Your task to perform on an android device: Search for razer huntsman on bestbuy, select the first entry, add it to the cart, then select checkout. Image 0: 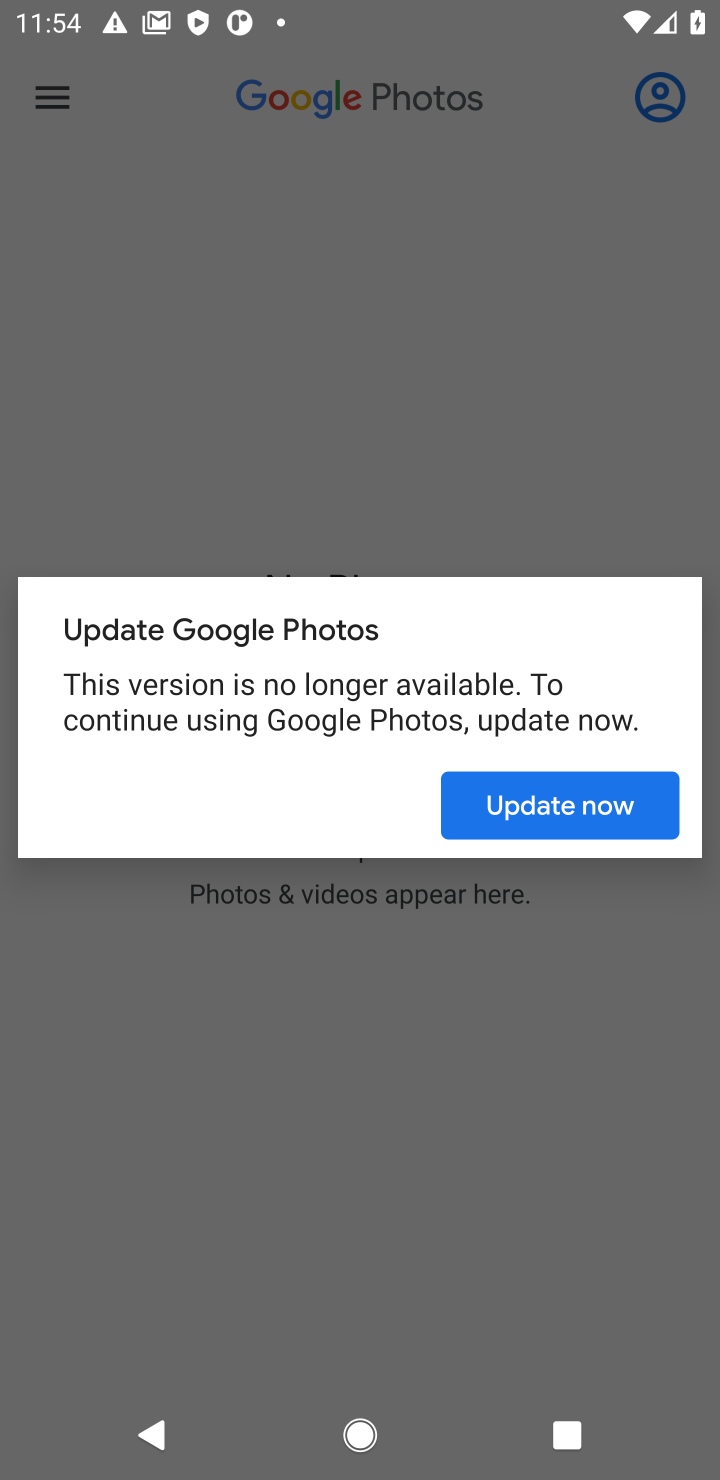
Step 0: press home button
Your task to perform on an android device: Search for razer huntsman on bestbuy, select the first entry, add it to the cart, then select checkout. Image 1: 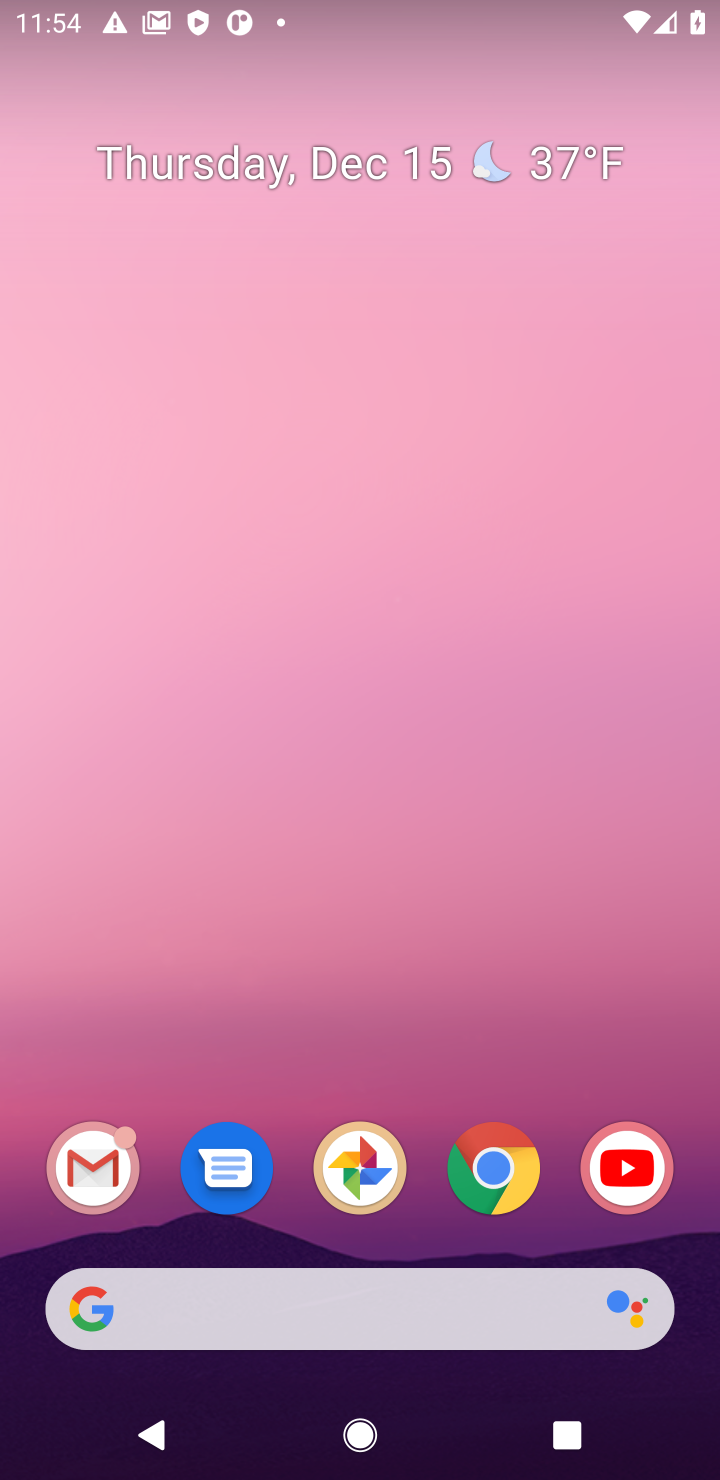
Step 1: click (476, 1193)
Your task to perform on an android device: Search for razer huntsman on bestbuy, select the first entry, add it to the cart, then select checkout. Image 2: 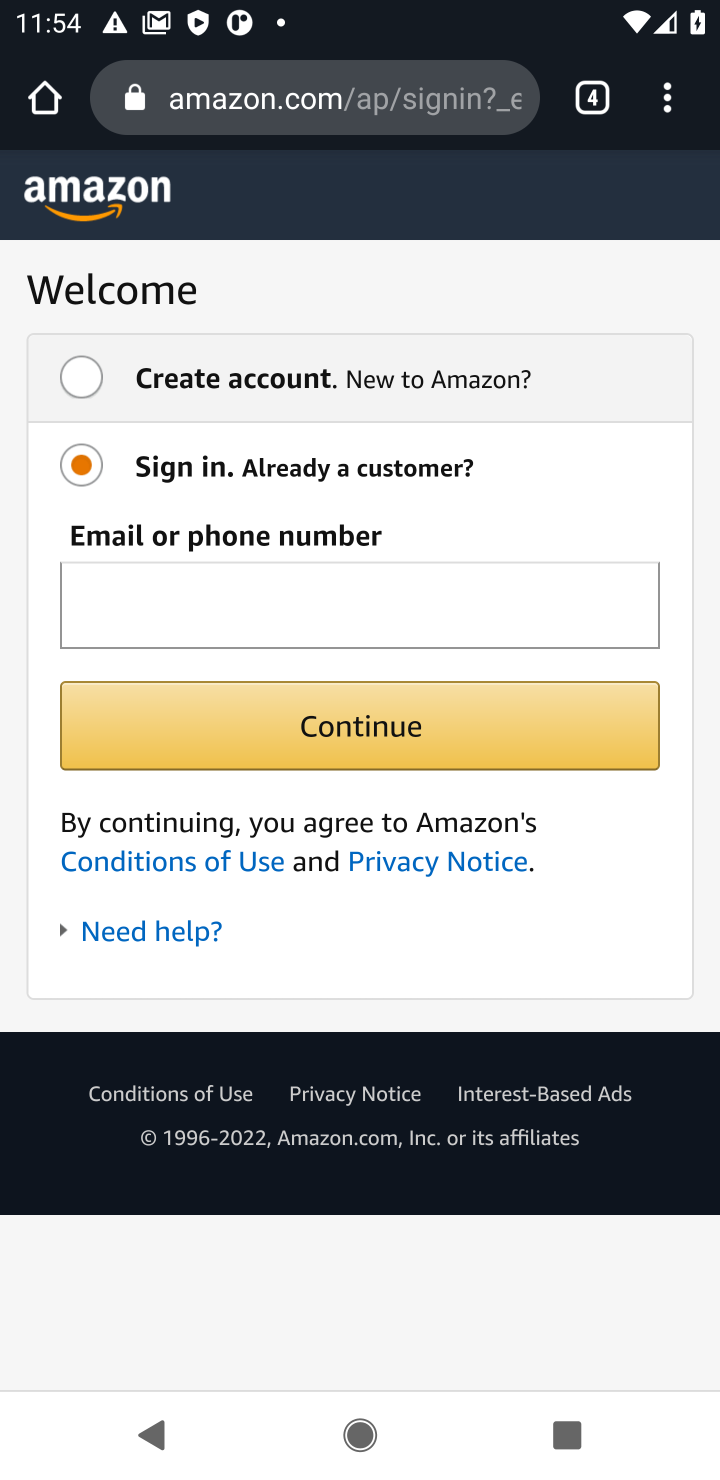
Step 2: click (353, 122)
Your task to perform on an android device: Search for razer huntsman on bestbuy, select the first entry, add it to the cart, then select checkout. Image 3: 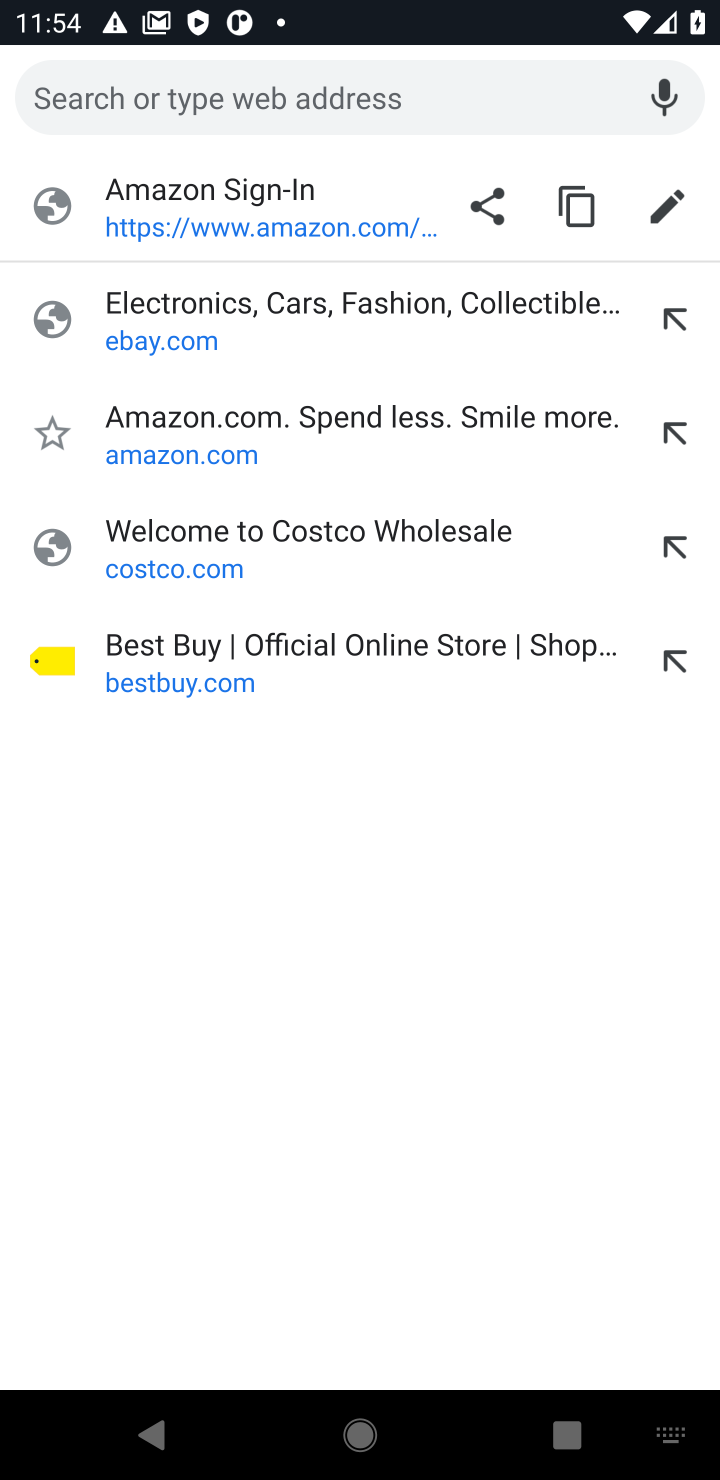
Step 3: click (262, 671)
Your task to perform on an android device: Search for razer huntsman on bestbuy, select the first entry, add it to the cart, then select checkout. Image 4: 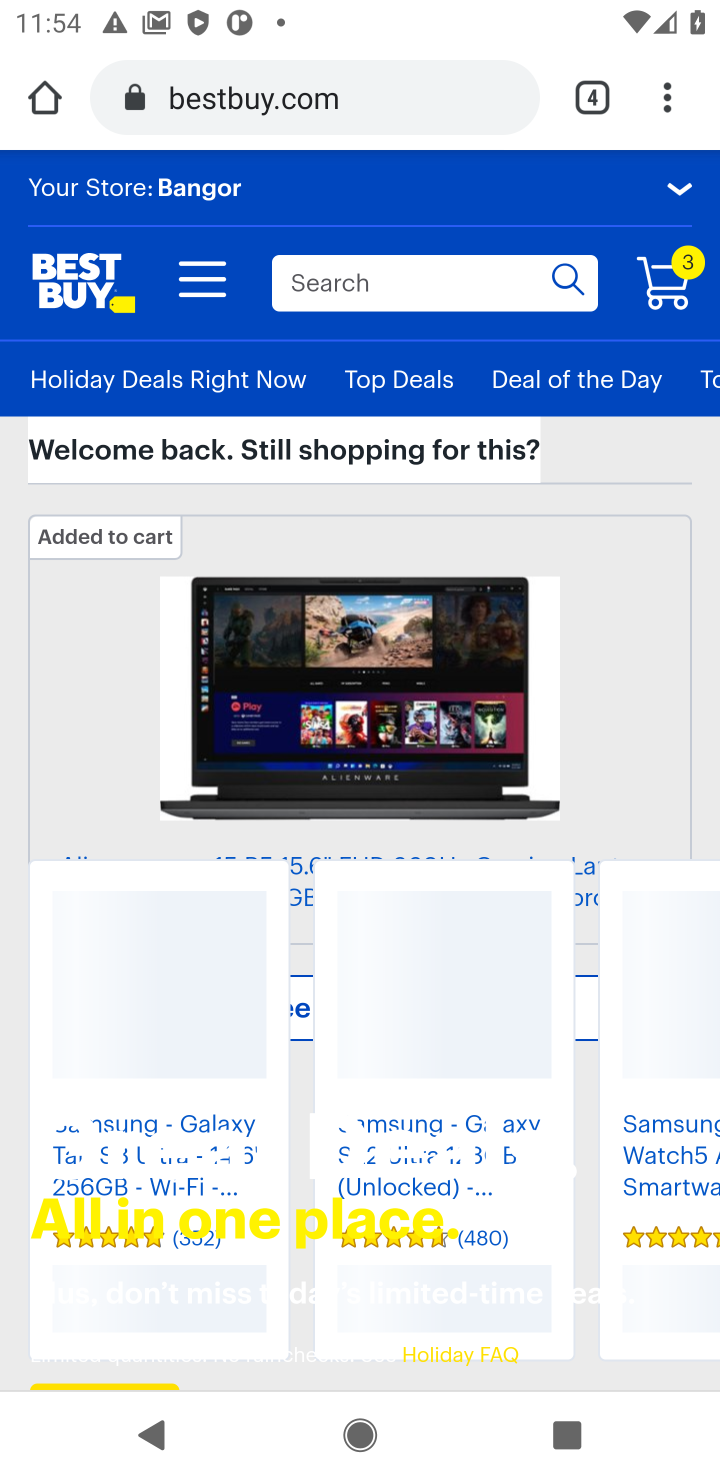
Step 4: click (377, 292)
Your task to perform on an android device: Search for razer huntsman on bestbuy, select the first entry, add it to the cart, then select checkout. Image 5: 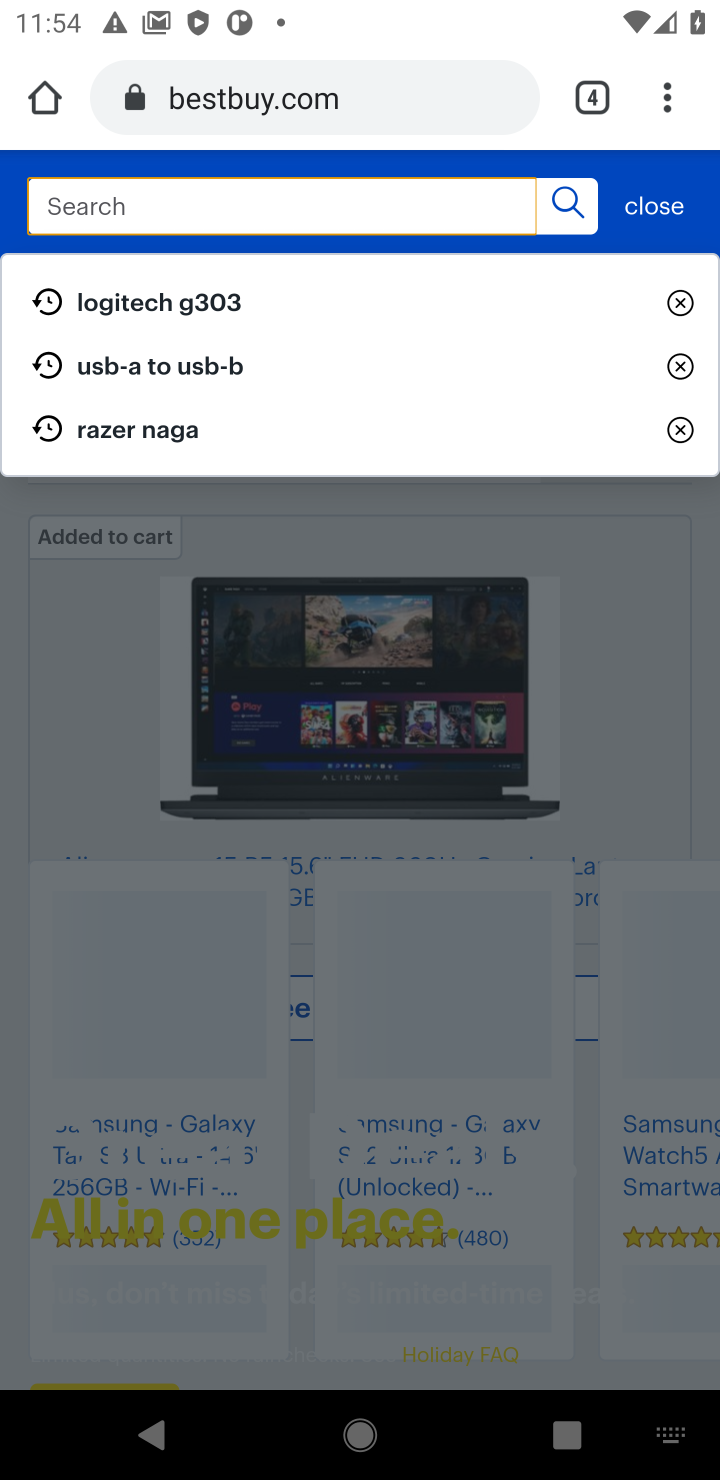
Step 5: type "razer hu8ntsman"
Your task to perform on an android device: Search for razer huntsman on bestbuy, select the first entry, add it to the cart, then select checkout. Image 6: 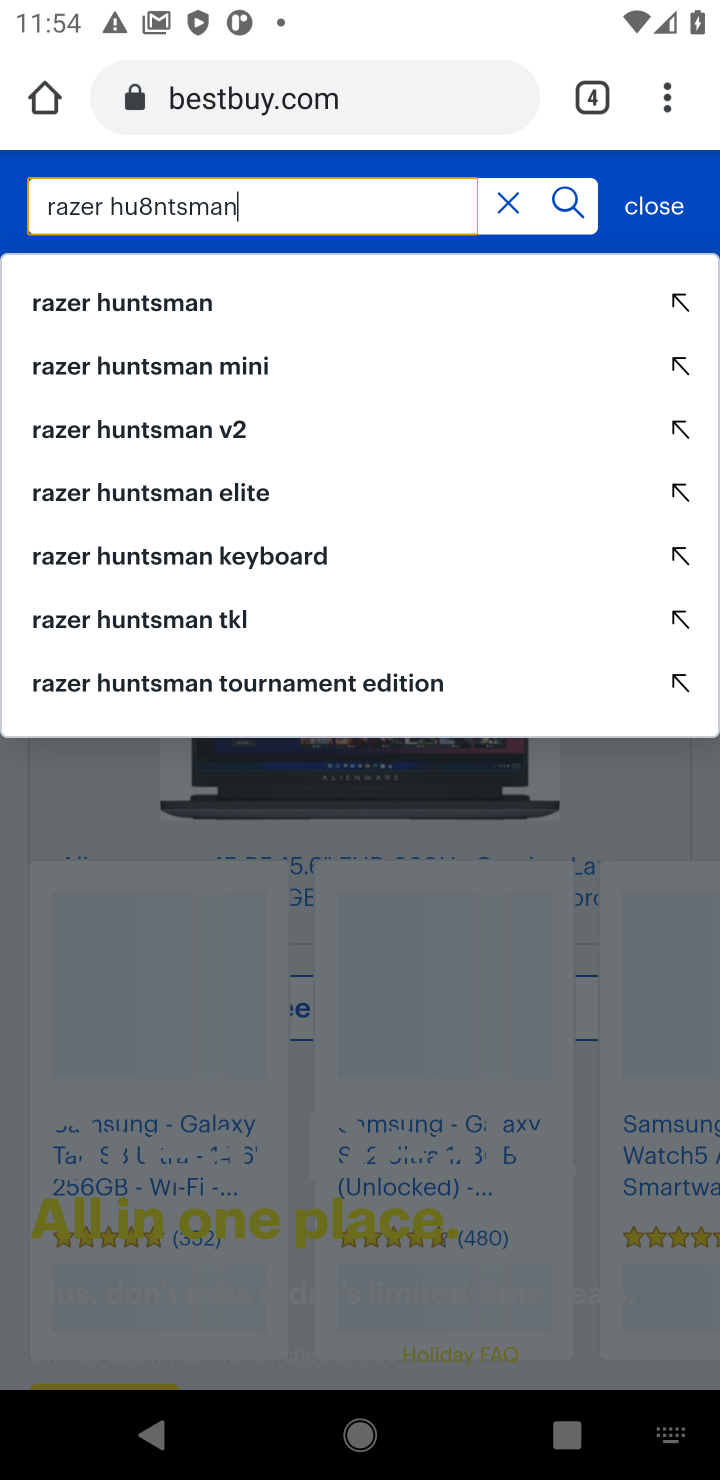
Step 6: click (209, 300)
Your task to perform on an android device: Search for razer huntsman on bestbuy, select the first entry, add it to the cart, then select checkout. Image 7: 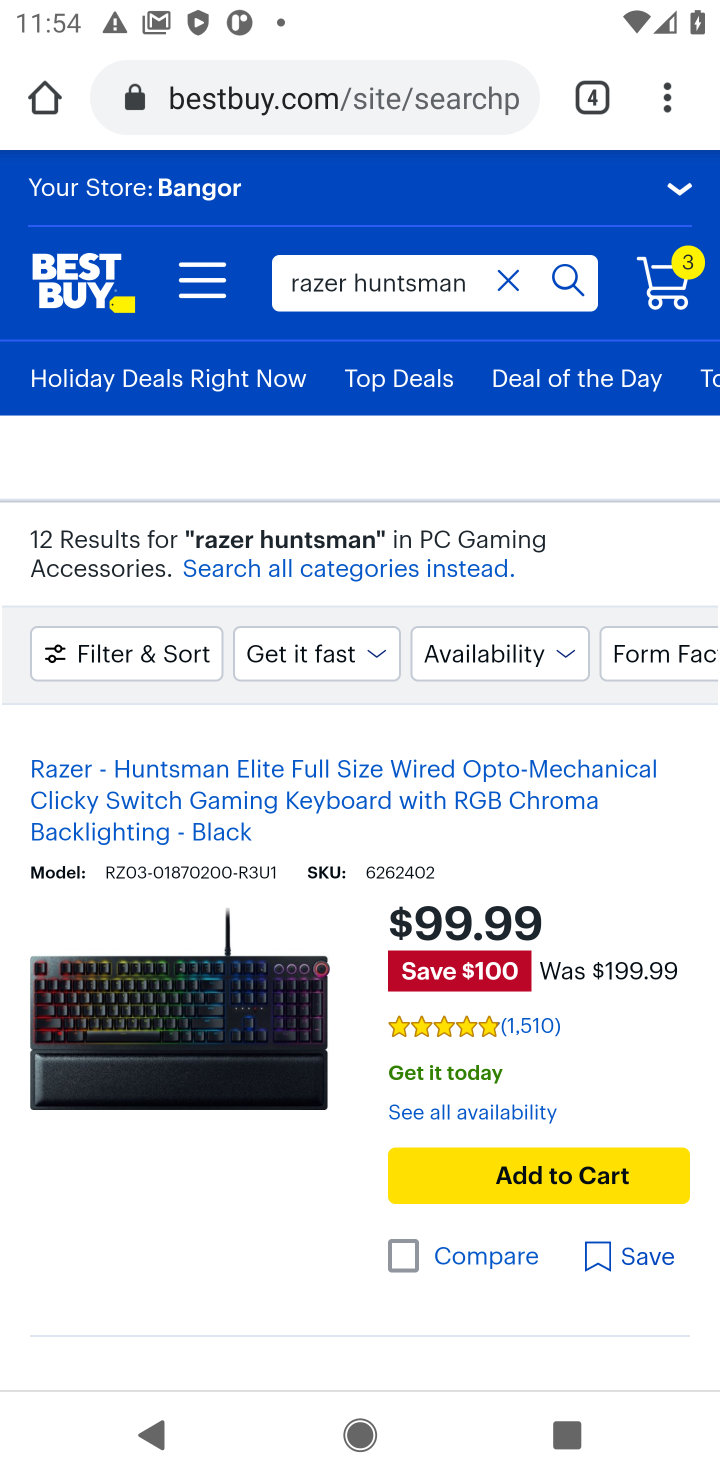
Step 7: click (354, 1022)
Your task to perform on an android device: Search for razer huntsman on bestbuy, select the first entry, add it to the cart, then select checkout. Image 8: 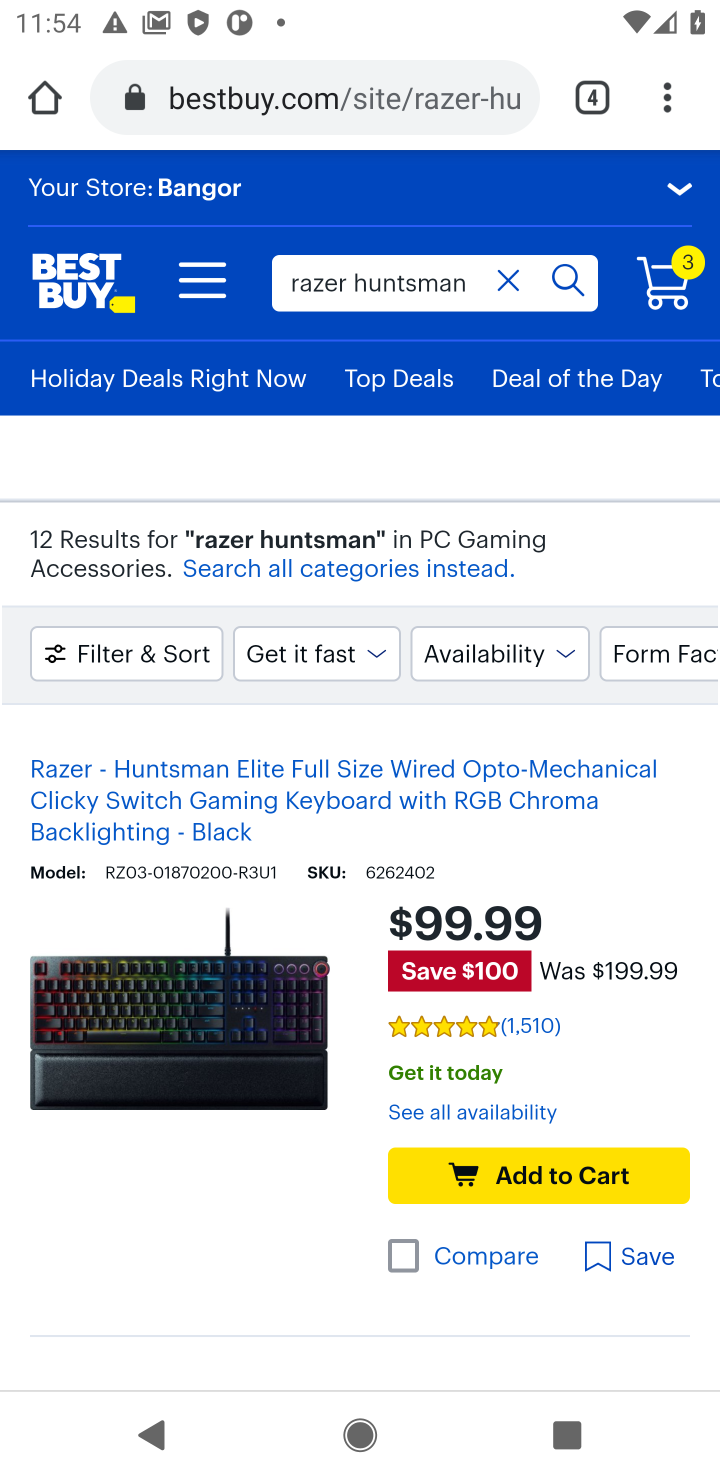
Step 8: click (571, 1163)
Your task to perform on an android device: Search for razer huntsman on bestbuy, select the first entry, add it to the cart, then select checkout. Image 9: 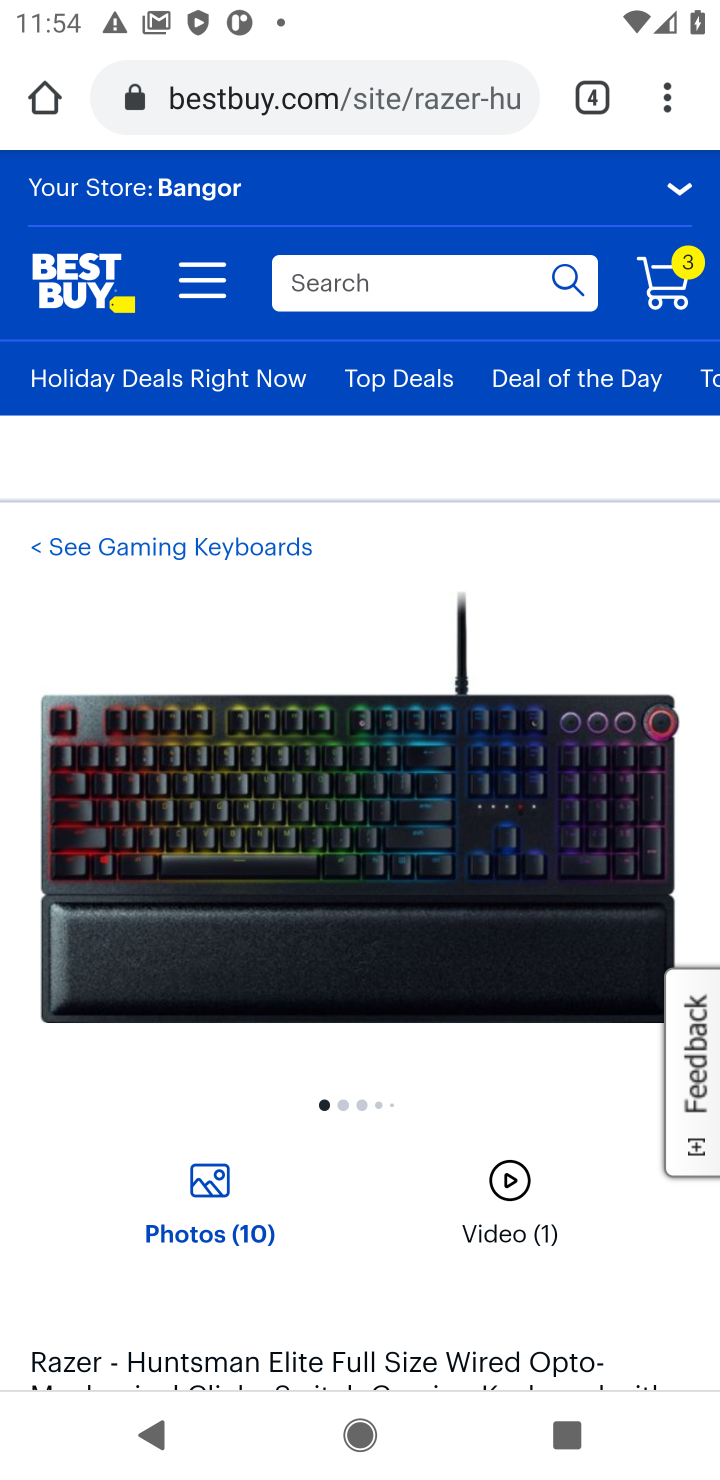
Step 9: drag from (426, 1296) to (369, 396)
Your task to perform on an android device: Search for razer huntsman on bestbuy, select the first entry, add it to the cart, then select checkout. Image 10: 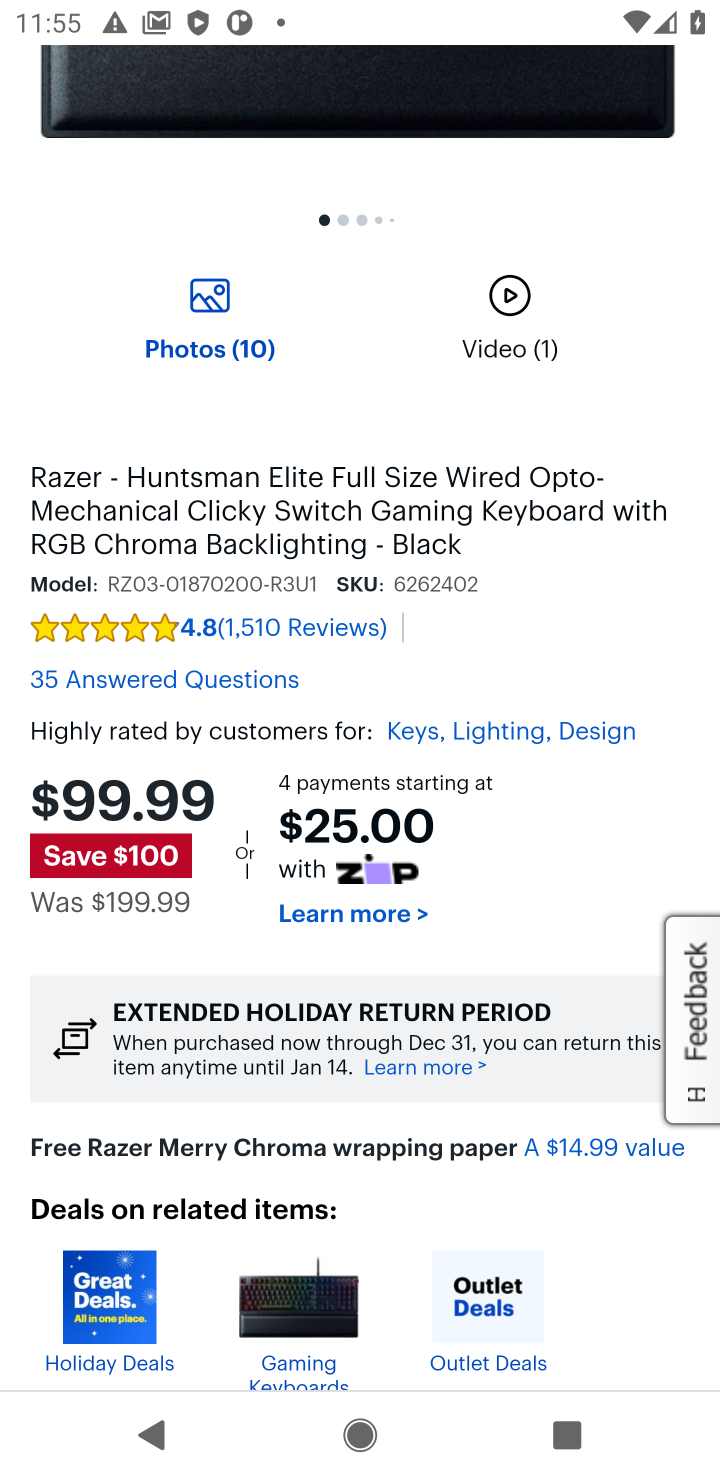
Step 10: drag from (410, 1311) to (407, 453)
Your task to perform on an android device: Search for razer huntsman on bestbuy, select the first entry, add it to the cart, then select checkout. Image 11: 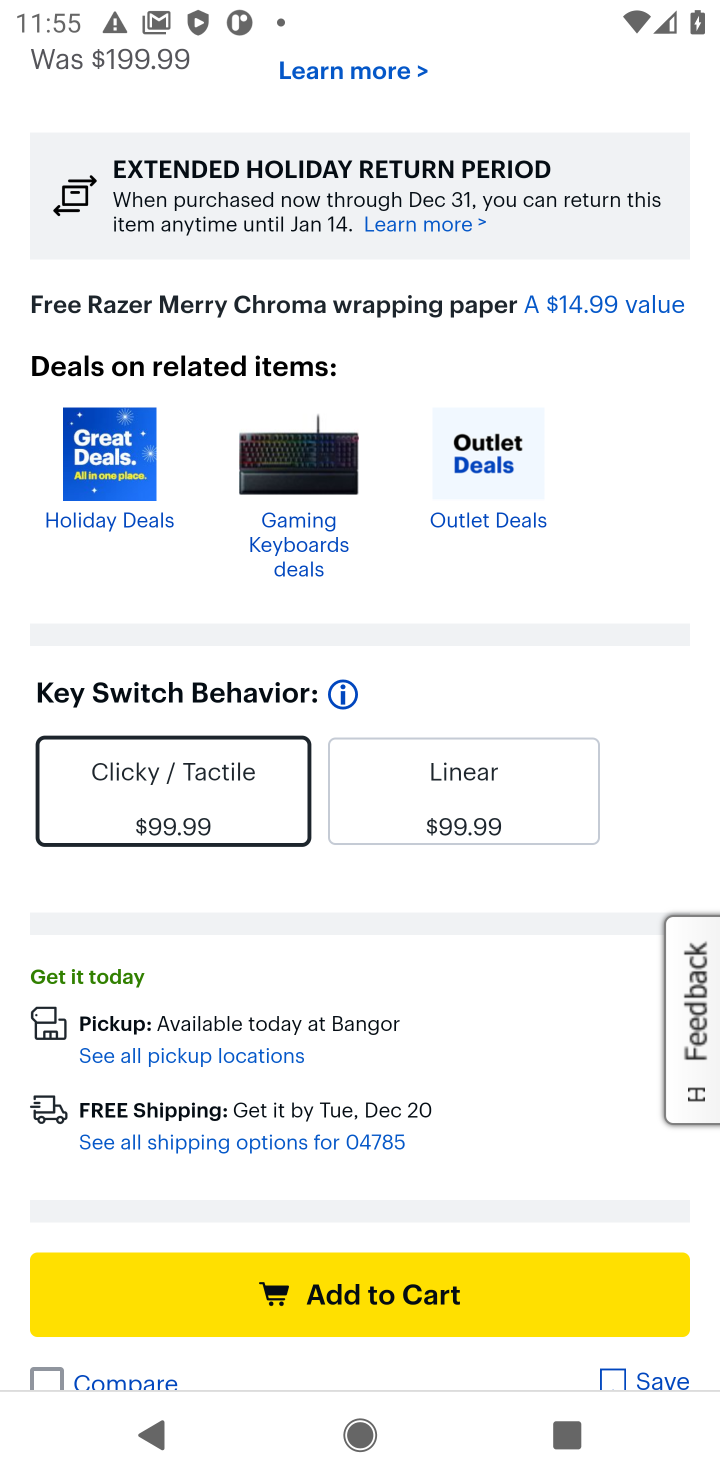
Step 11: click (380, 1302)
Your task to perform on an android device: Search for razer huntsman on bestbuy, select the first entry, add it to the cart, then select checkout. Image 12: 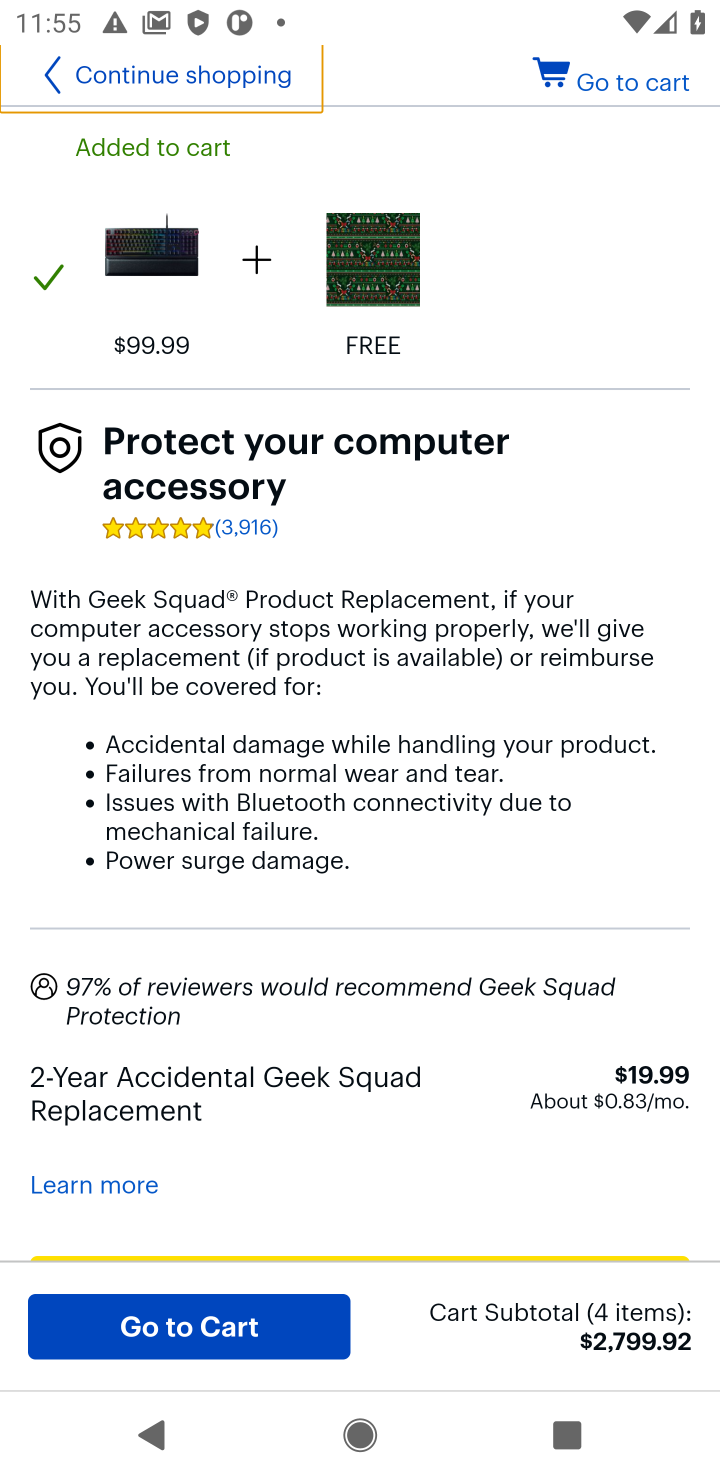
Step 12: click (231, 1333)
Your task to perform on an android device: Search for razer huntsman on bestbuy, select the first entry, add it to the cart, then select checkout. Image 13: 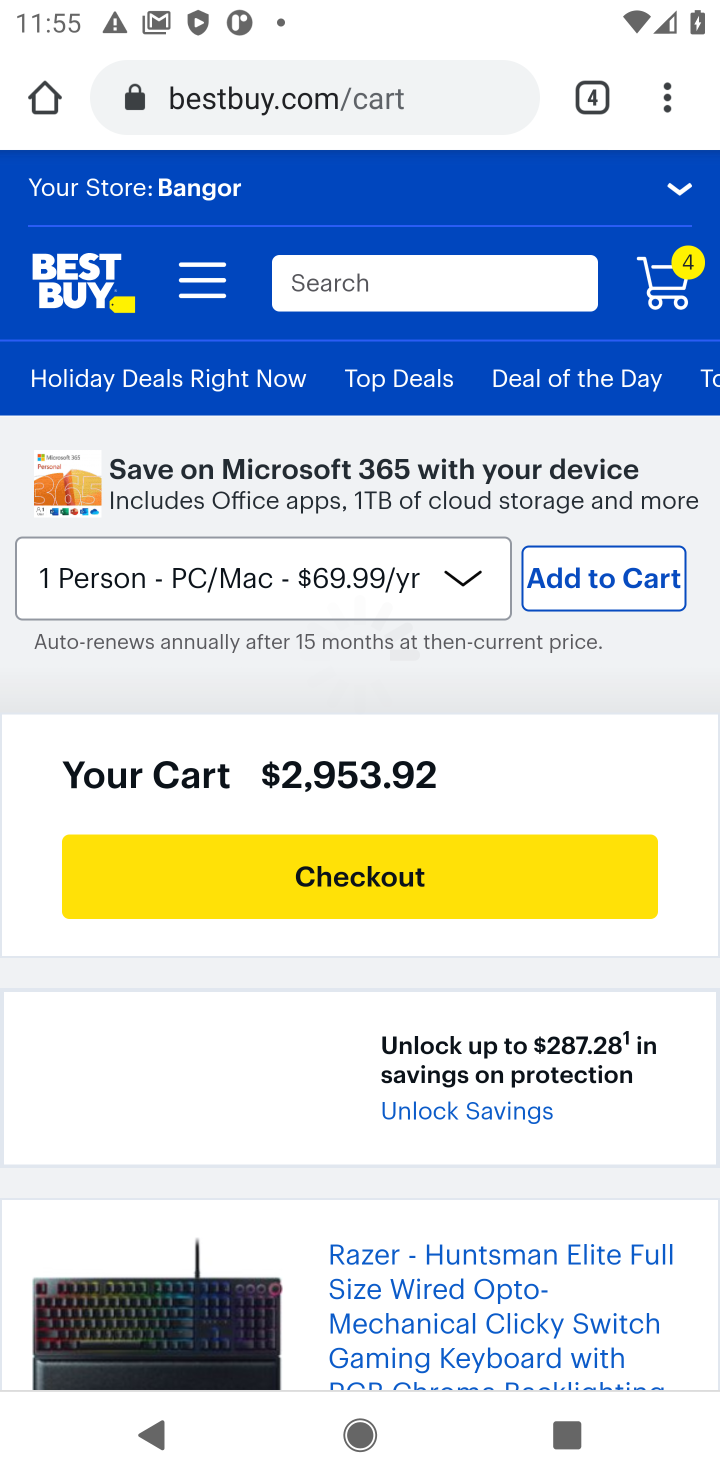
Step 13: click (680, 269)
Your task to perform on an android device: Search for razer huntsman on bestbuy, select the first entry, add it to the cart, then select checkout. Image 14: 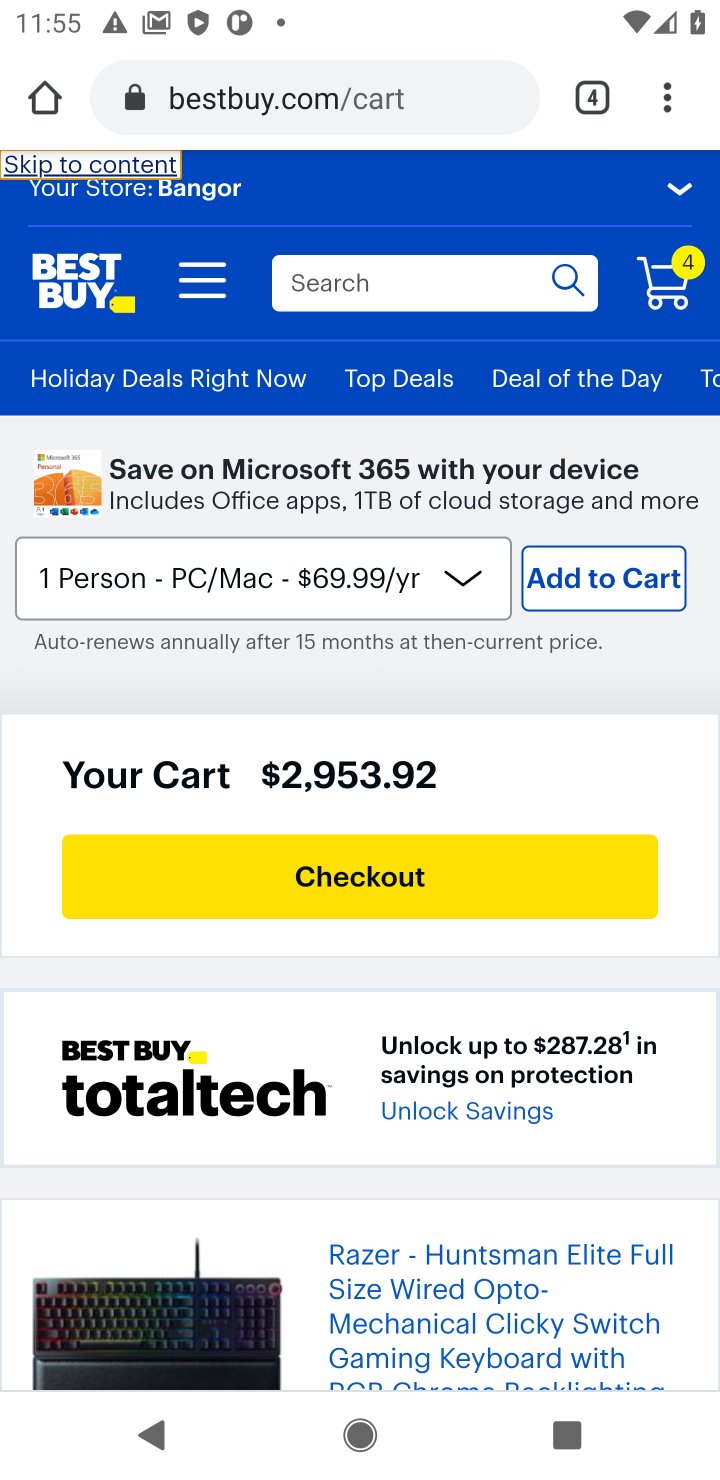
Step 14: click (370, 860)
Your task to perform on an android device: Search for razer huntsman on bestbuy, select the first entry, add it to the cart, then select checkout. Image 15: 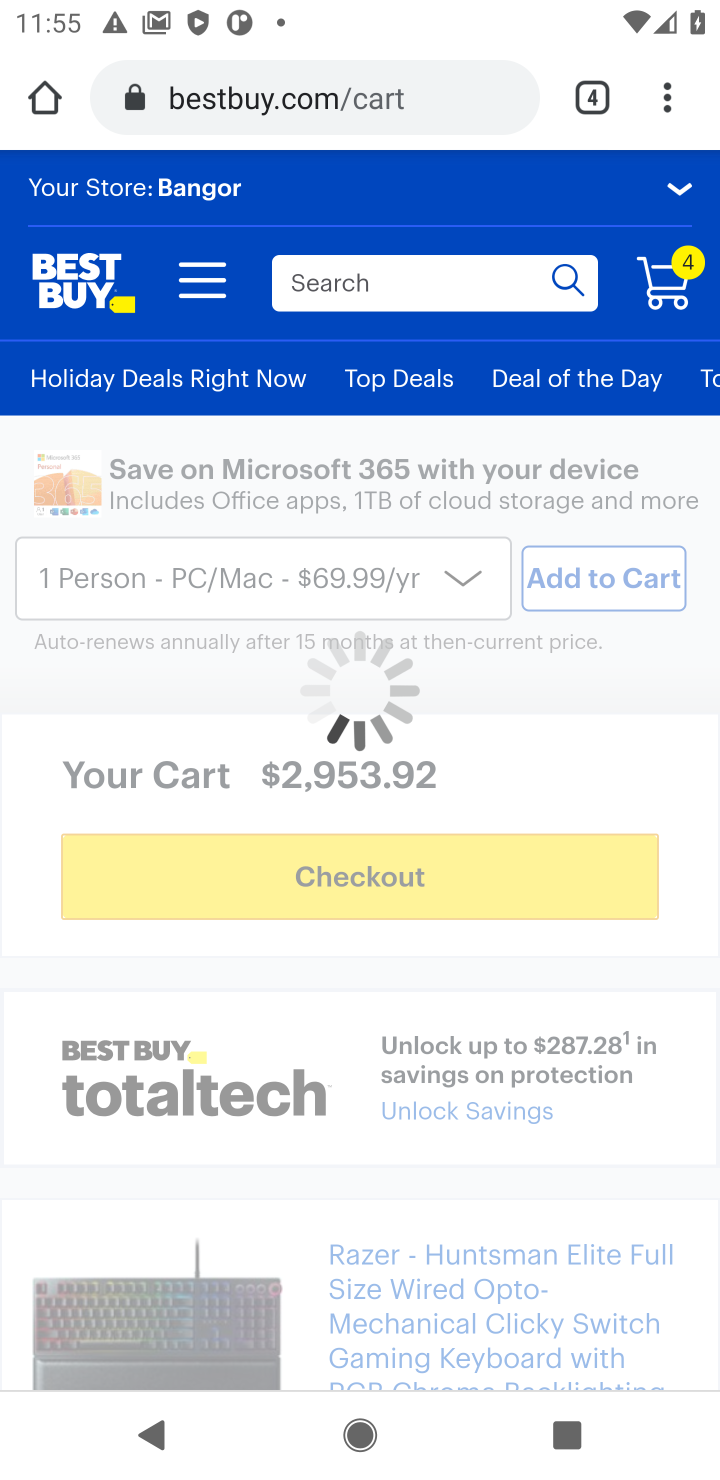
Step 15: task complete